Your task to perform on an android device: Open notification settings Image 0: 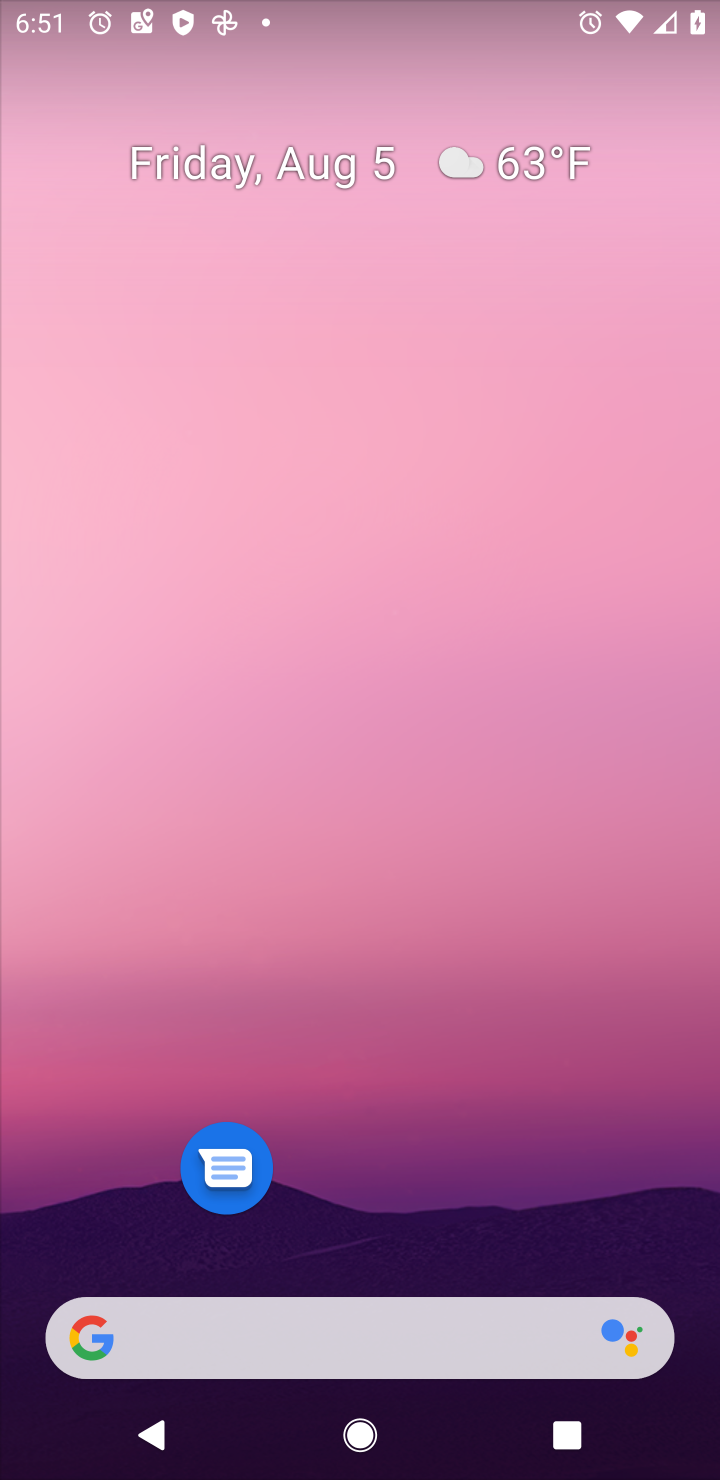
Step 0: drag from (426, 1051) to (347, 115)
Your task to perform on an android device: Open notification settings Image 1: 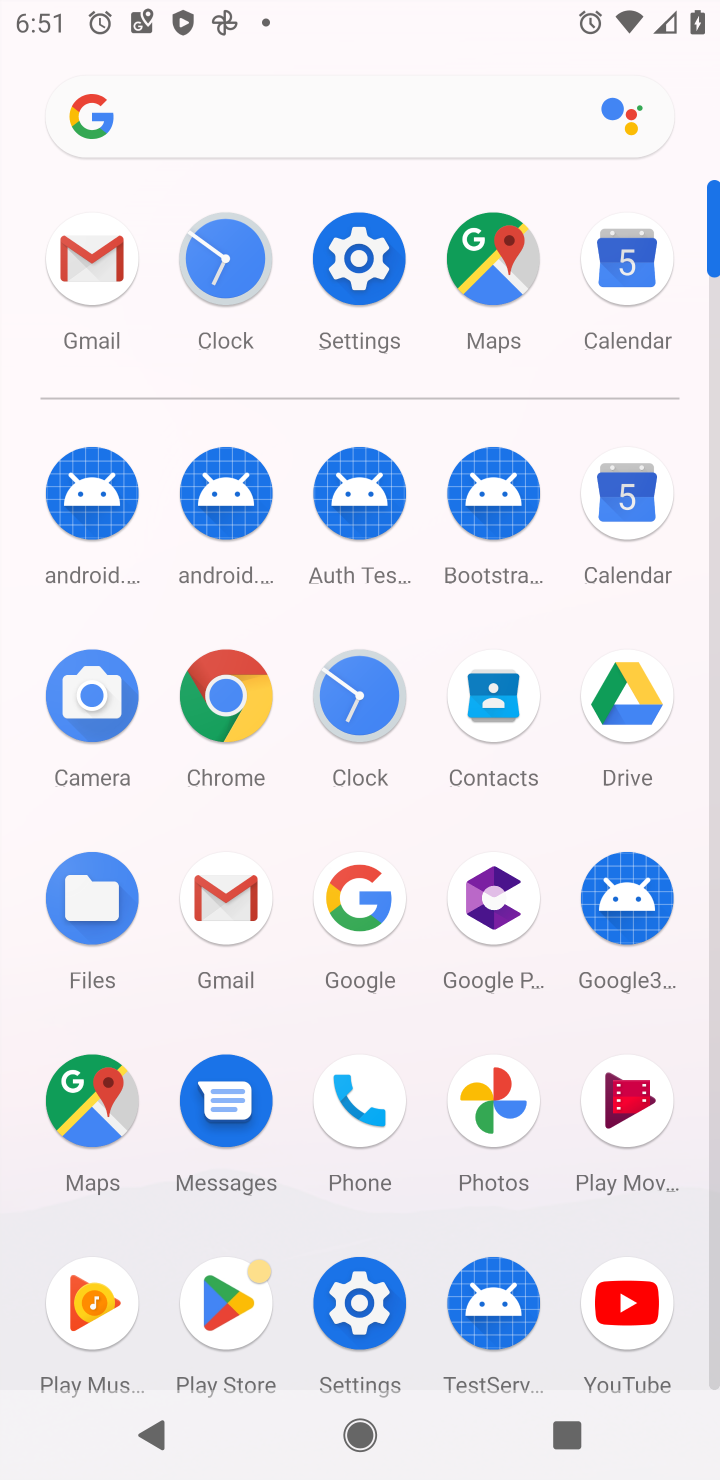
Step 1: click (361, 263)
Your task to perform on an android device: Open notification settings Image 2: 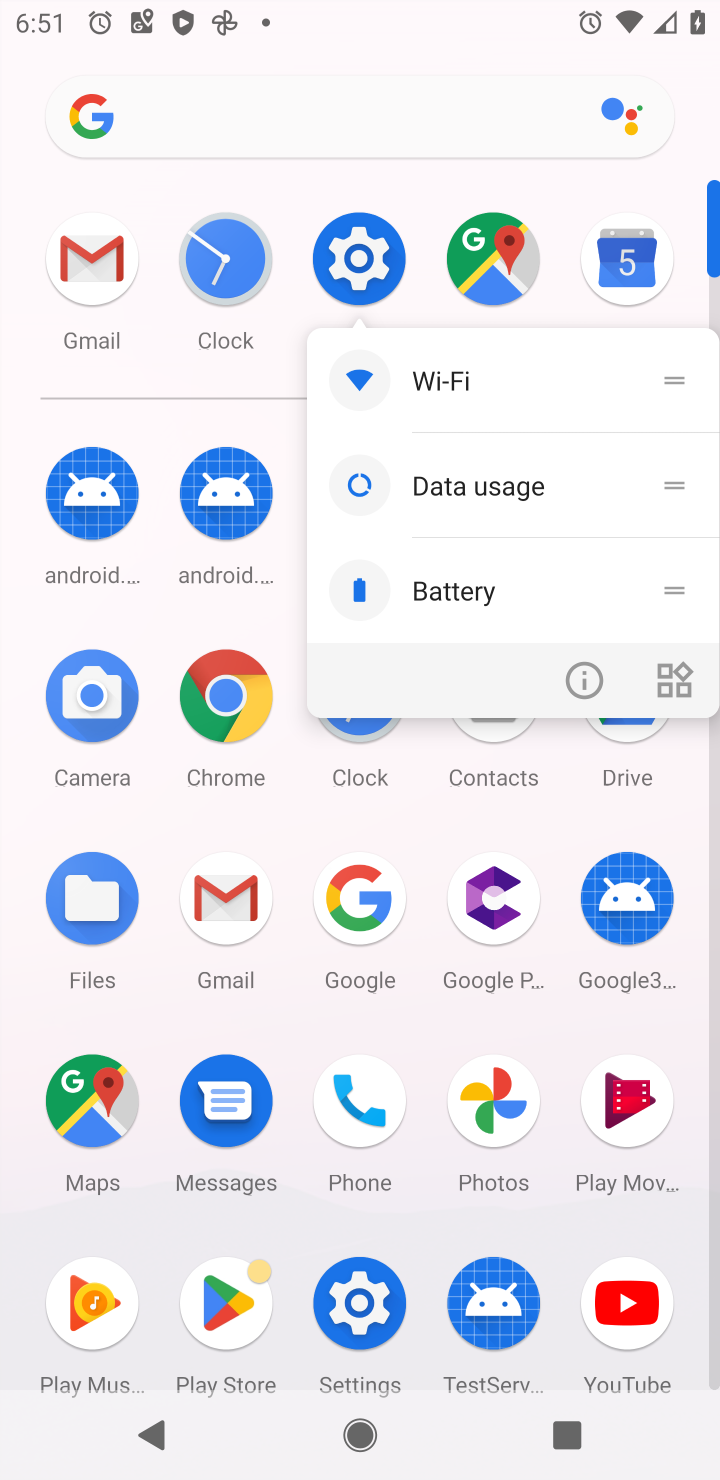
Step 2: click (361, 263)
Your task to perform on an android device: Open notification settings Image 3: 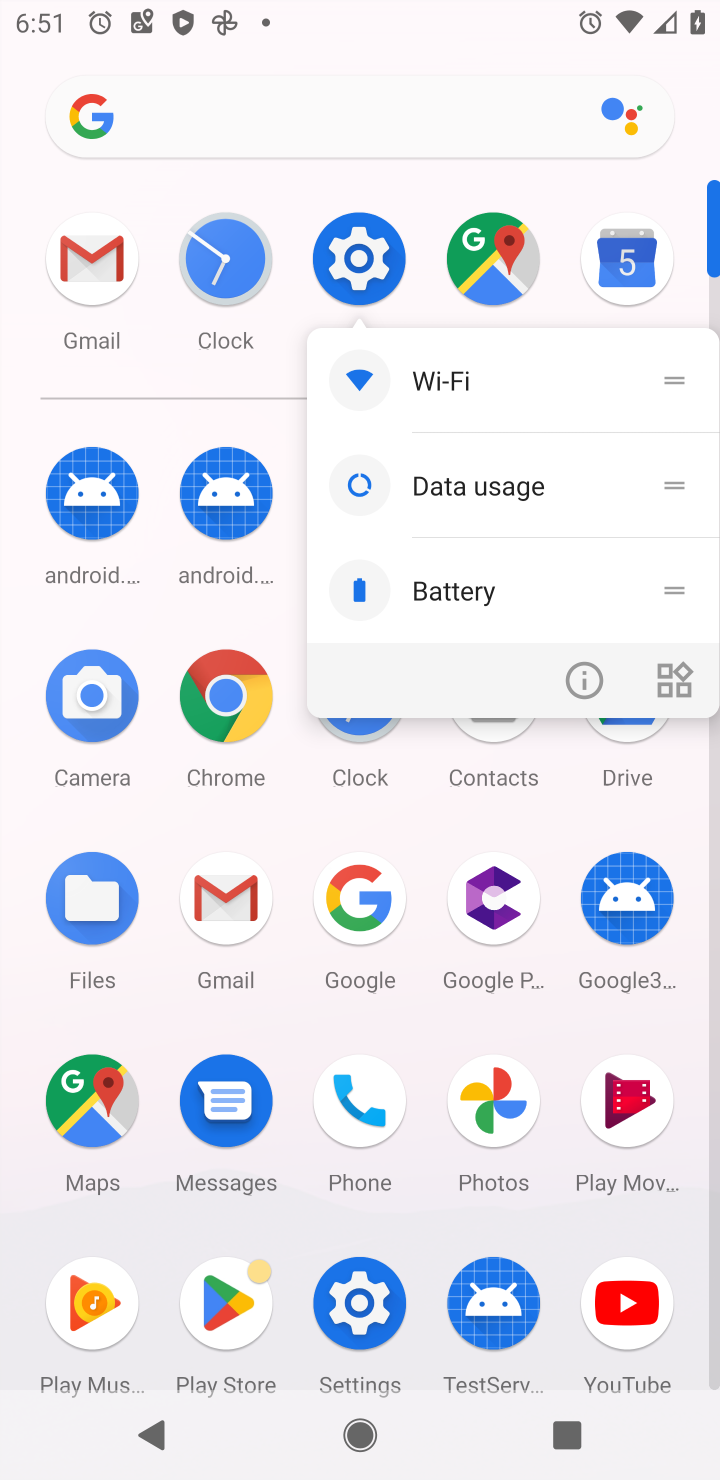
Step 3: click (361, 261)
Your task to perform on an android device: Open notification settings Image 4: 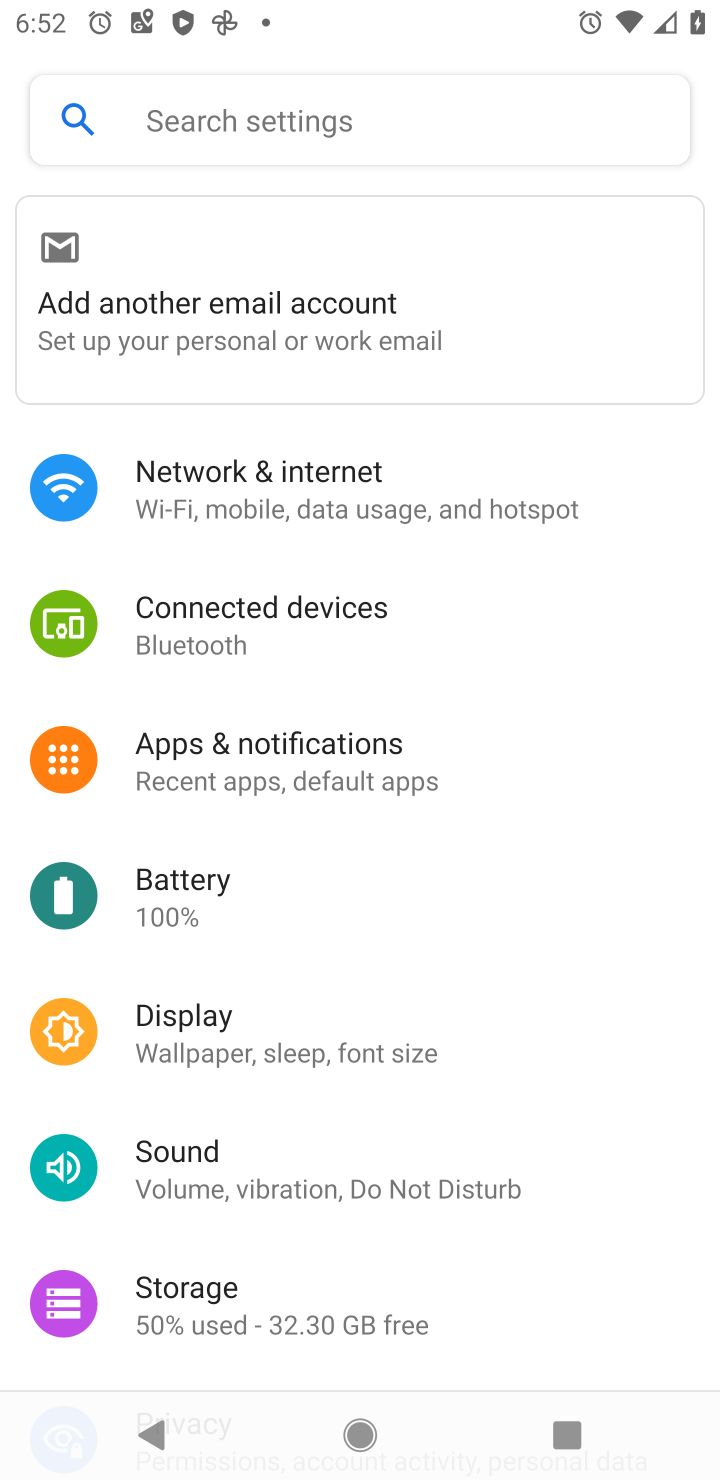
Step 4: click (278, 764)
Your task to perform on an android device: Open notification settings Image 5: 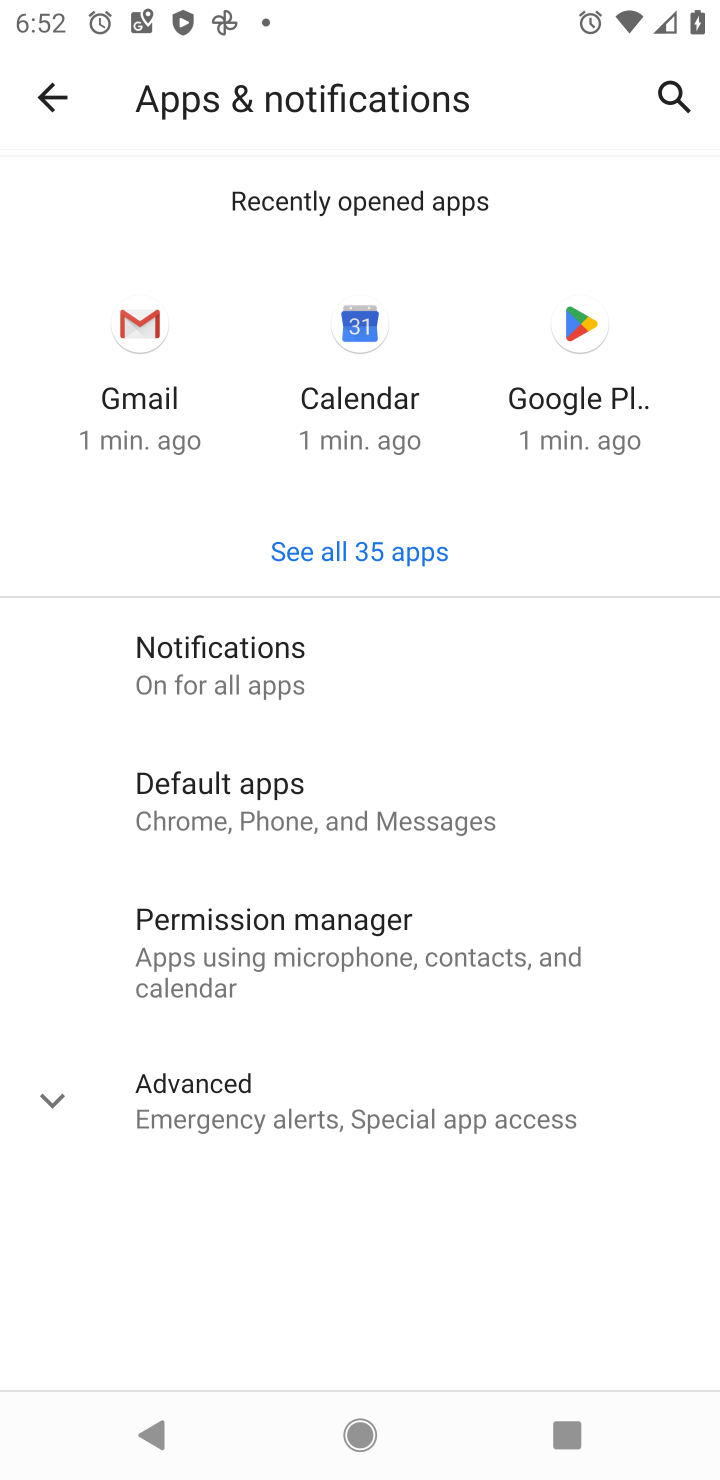
Step 5: click (220, 668)
Your task to perform on an android device: Open notification settings Image 6: 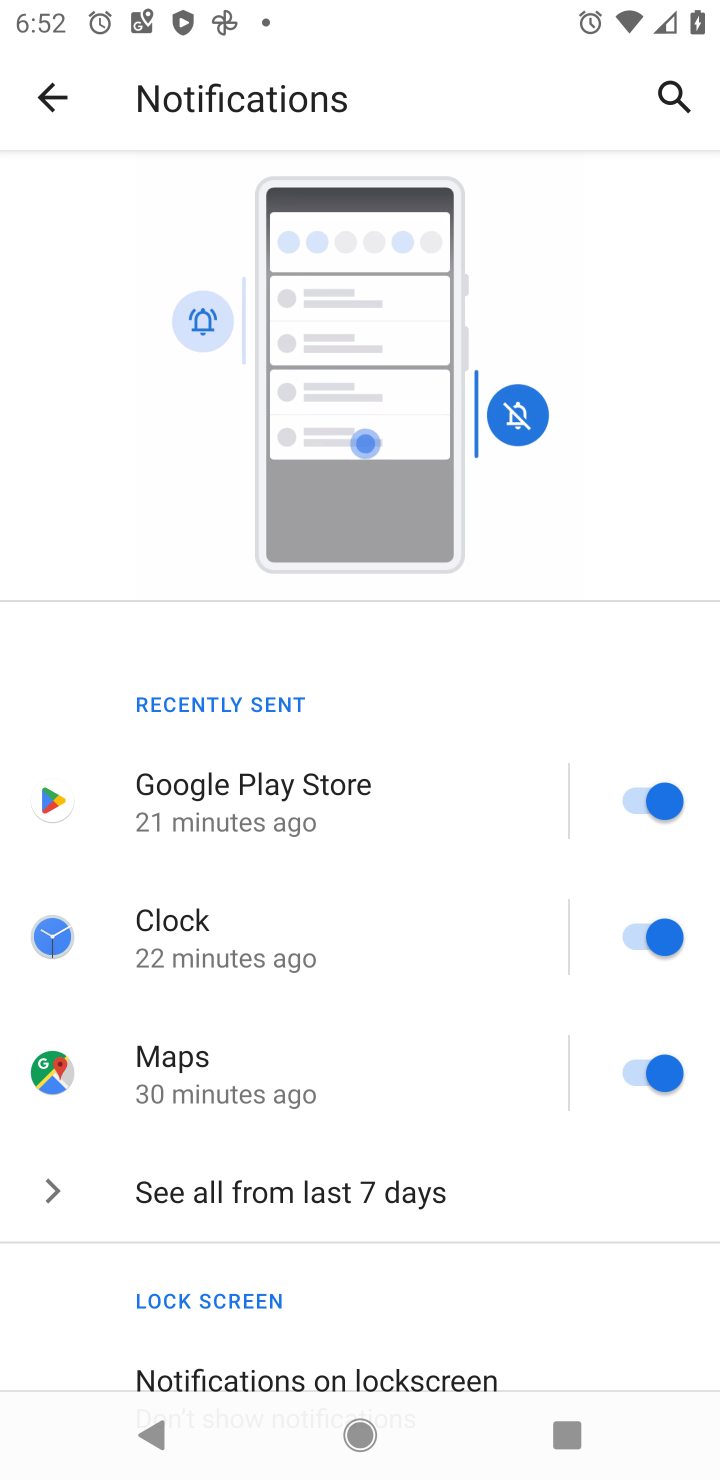
Step 6: task complete